Your task to perform on an android device: Open the stopwatch Image 0: 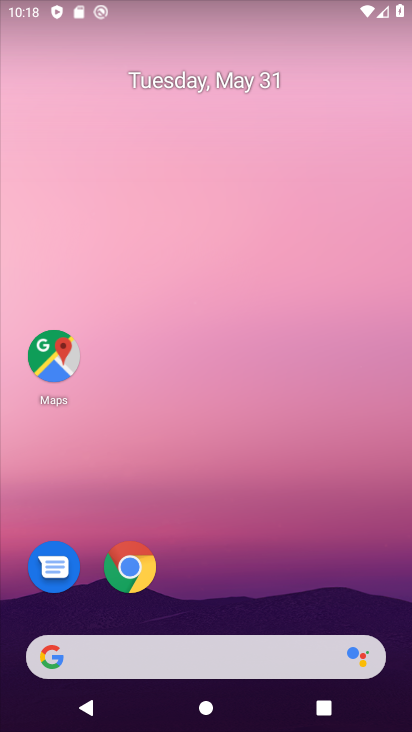
Step 0: drag from (245, 593) to (291, 71)
Your task to perform on an android device: Open the stopwatch Image 1: 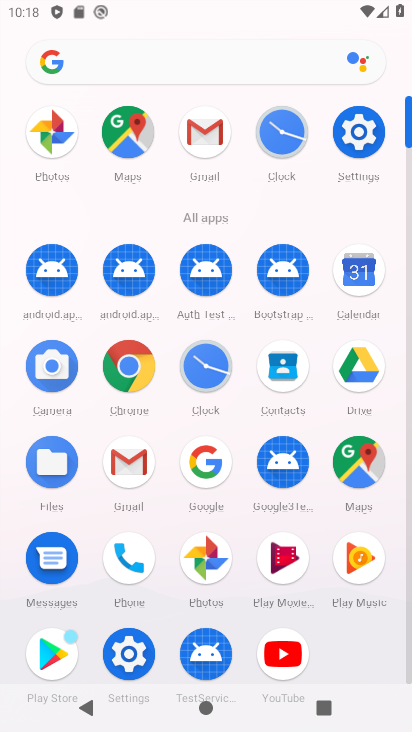
Step 1: click (209, 375)
Your task to perform on an android device: Open the stopwatch Image 2: 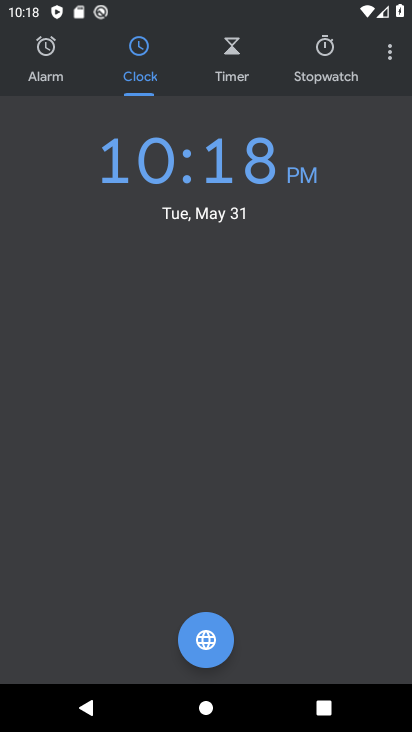
Step 2: click (320, 38)
Your task to perform on an android device: Open the stopwatch Image 3: 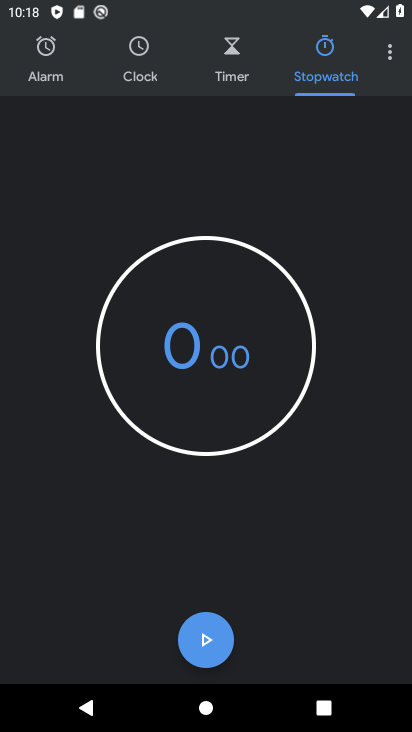
Step 3: task complete